Your task to perform on an android device: turn on the 12-hour format for clock Image 0: 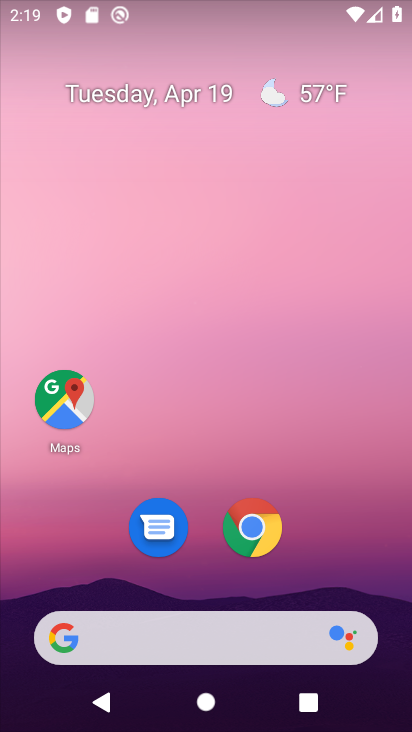
Step 0: drag from (358, 546) to (343, 26)
Your task to perform on an android device: turn on the 12-hour format for clock Image 1: 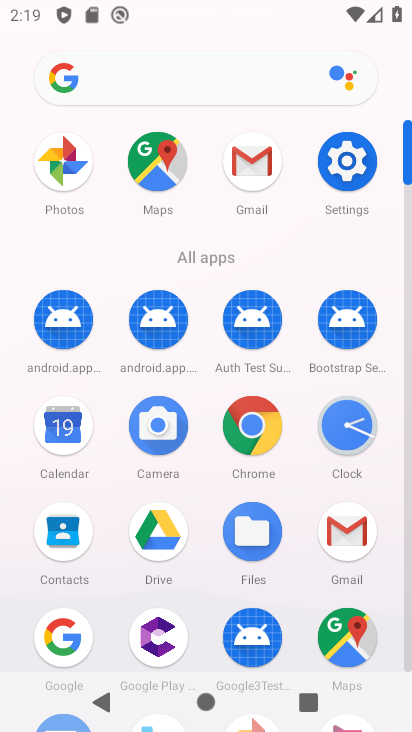
Step 1: click (346, 416)
Your task to perform on an android device: turn on the 12-hour format for clock Image 2: 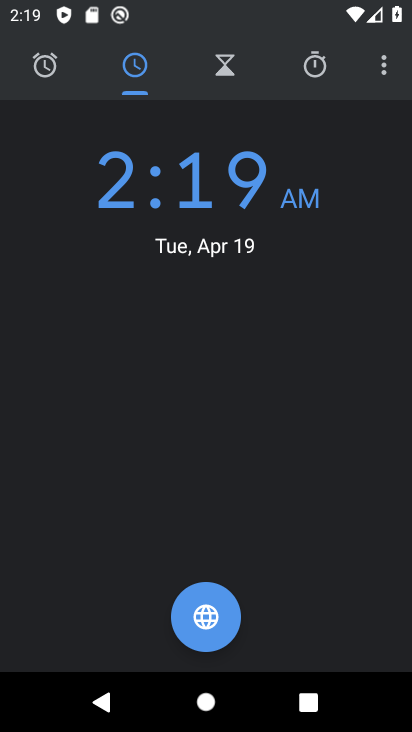
Step 2: click (382, 62)
Your task to perform on an android device: turn on the 12-hour format for clock Image 3: 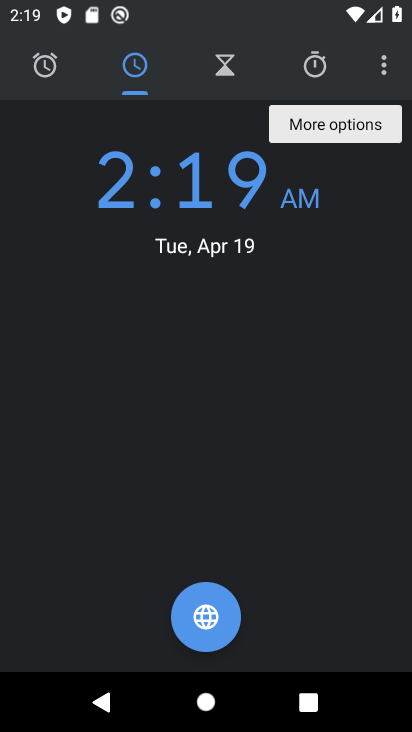
Step 3: click (389, 68)
Your task to perform on an android device: turn on the 12-hour format for clock Image 4: 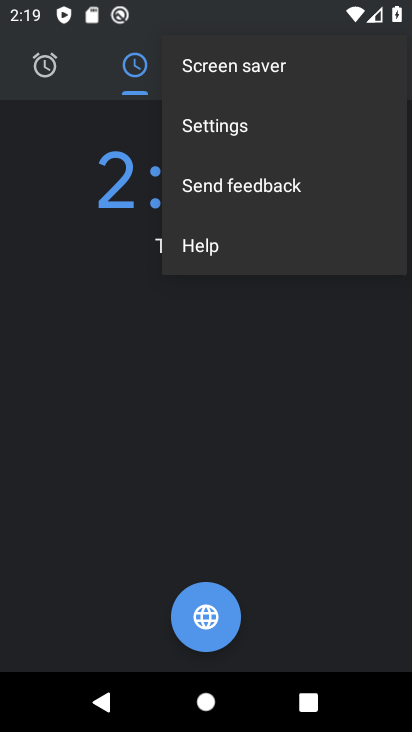
Step 4: click (256, 125)
Your task to perform on an android device: turn on the 12-hour format for clock Image 5: 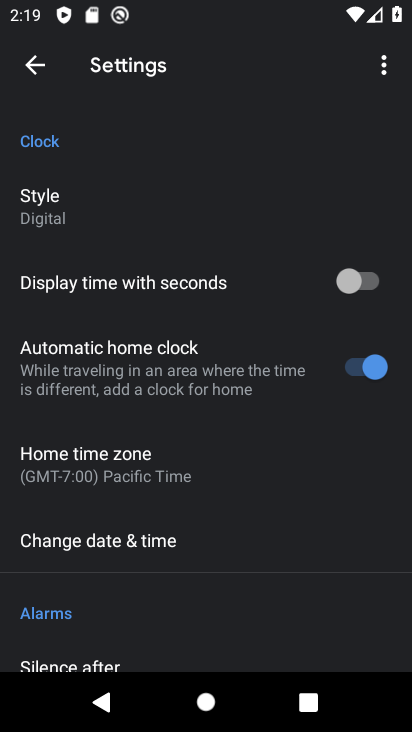
Step 5: click (275, 548)
Your task to perform on an android device: turn on the 12-hour format for clock Image 6: 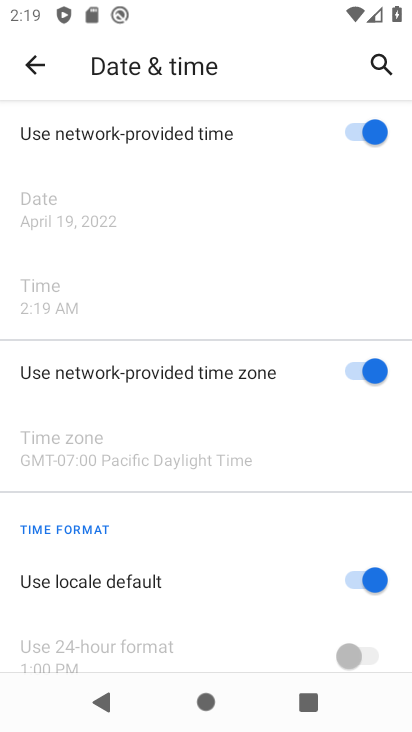
Step 6: task complete